Your task to perform on an android device: Go to internet settings Image 0: 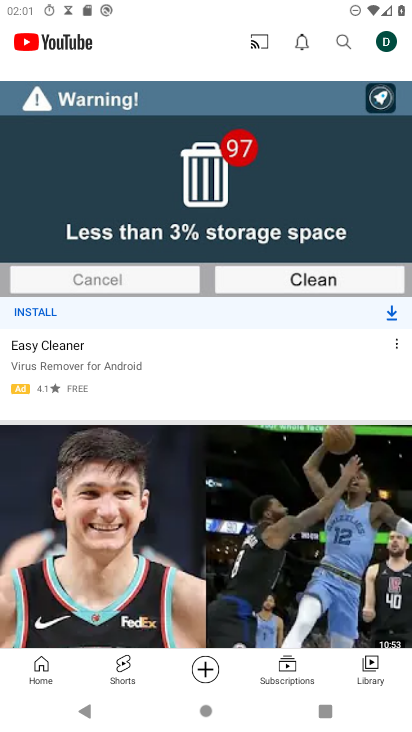
Step 0: press home button
Your task to perform on an android device: Go to internet settings Image 1: 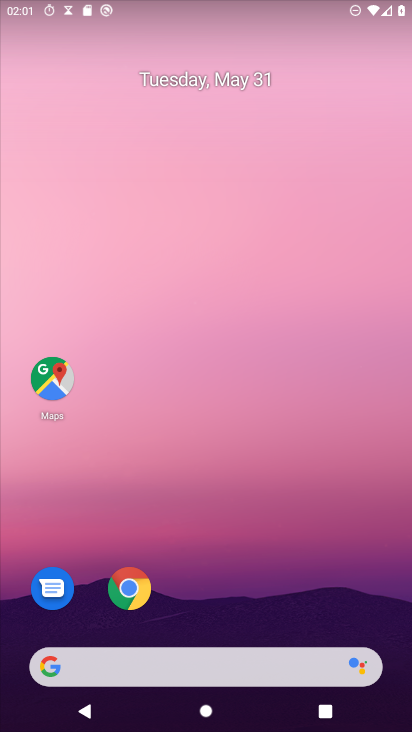
Step 1: drag from (312, 667) to (322, 0)
Your task to perform on an android device: Go to internet settings Image 2: 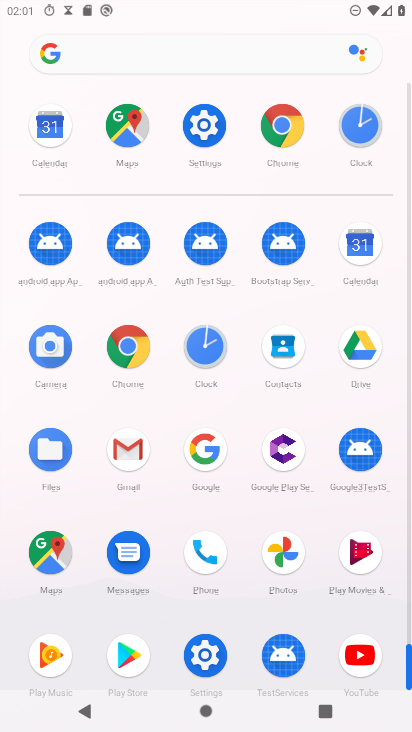
Step 2: click (200, 124)
Your task to perform on an android device: Go to internet settings Image 3: 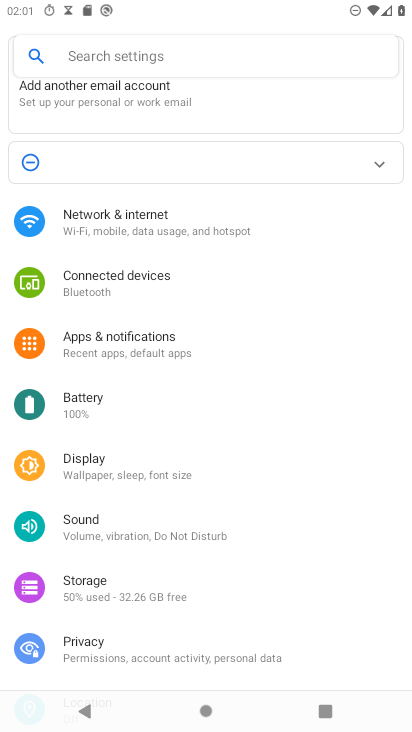
Step 3: click (168, 219)
Your task to perform on an android device: Go to internet settings Image 4: 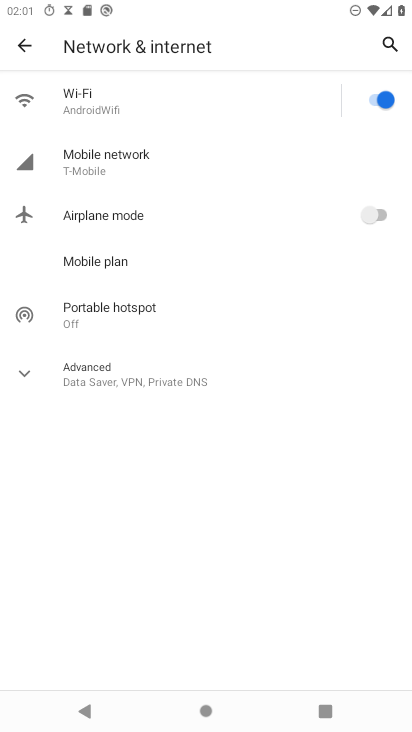
Step 4: click (147, 171)
Your task to perform on an android device: Go to internet settings Image 5: 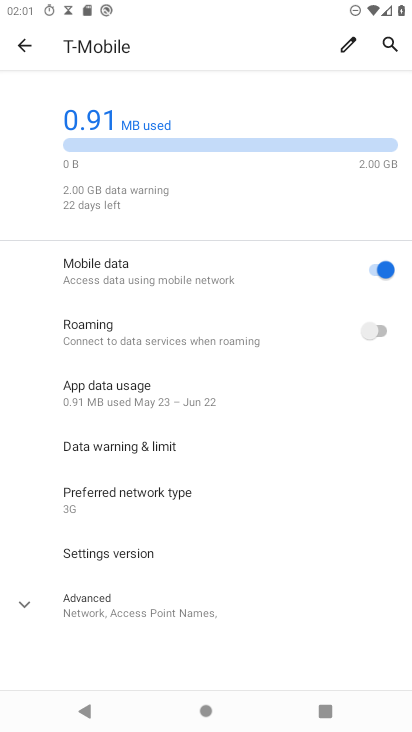
Step 5: task complete